Your task to perform on an android device: Open calendar and show me the first week of next month Image 0: 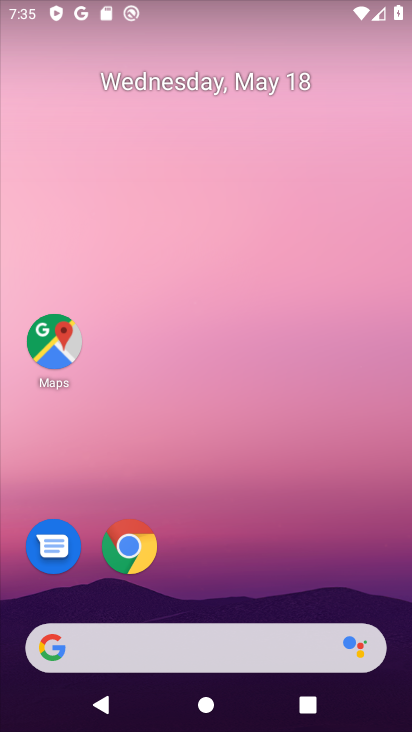
Step 0: drag from (227, 440) to (238, 245)
Your task to perform on an android device: Open calendar and show me the first week of next month Image 1: 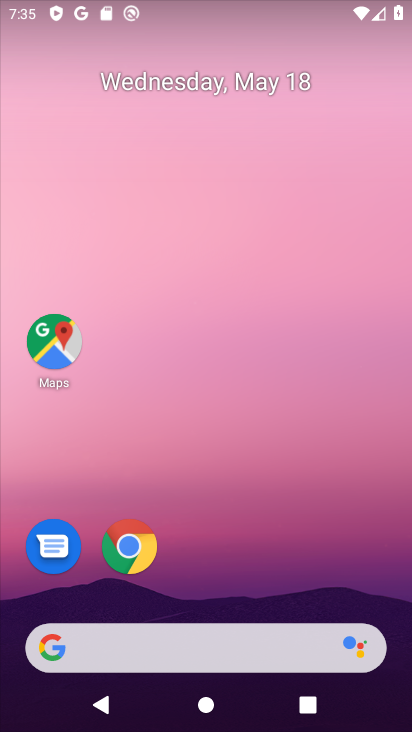
Step 1: drag from (200, 464) to (206, 153)
Your task to perform on an android device: Open calendar and show me the first week of next month Image 2: 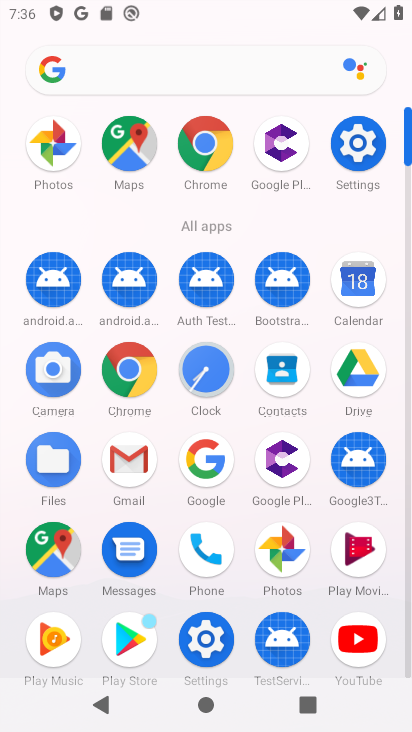
Step 2: click (351, 279)
Your task to perform on an android device: Open calendar and show me the first week of next month Image 3: 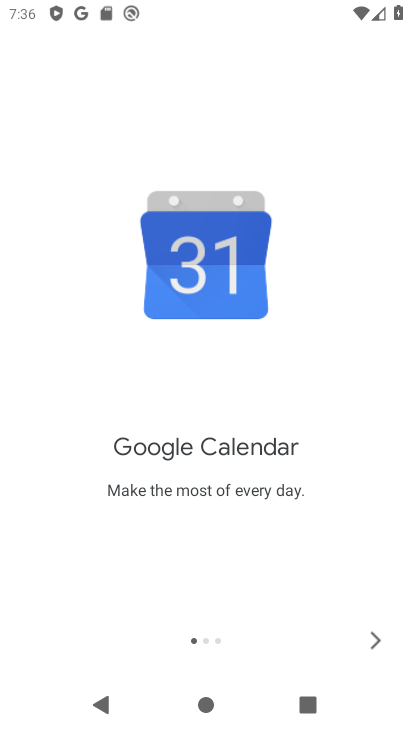
Step 3: click (375, 627)
Your task to perform on an android device: Open calendar and show me the first week of next month Image 4: 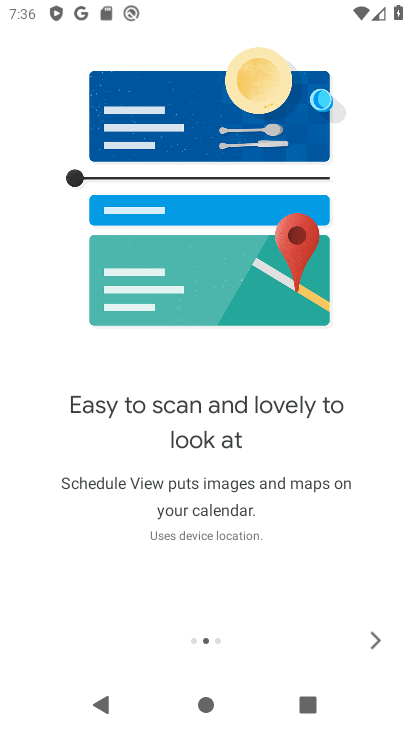
Step 4: click (373, 643)
Your task to perform on an android device: Open calendar and show me the first week of next month Image 5: 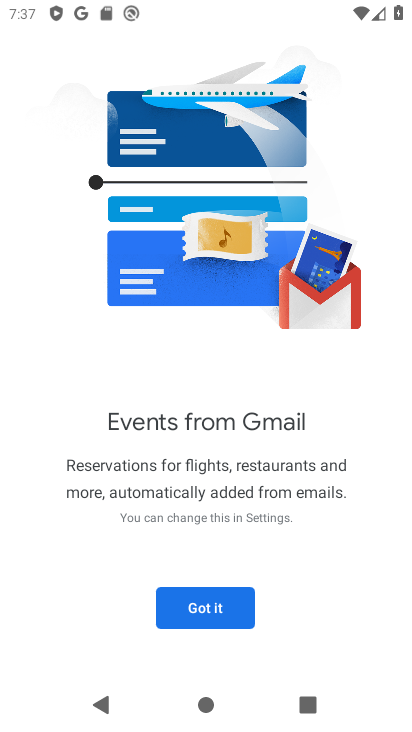
Step 5: click (232, 612)
Your task to perform on an android device: Open calendar and show me the first week of next month Image 6: 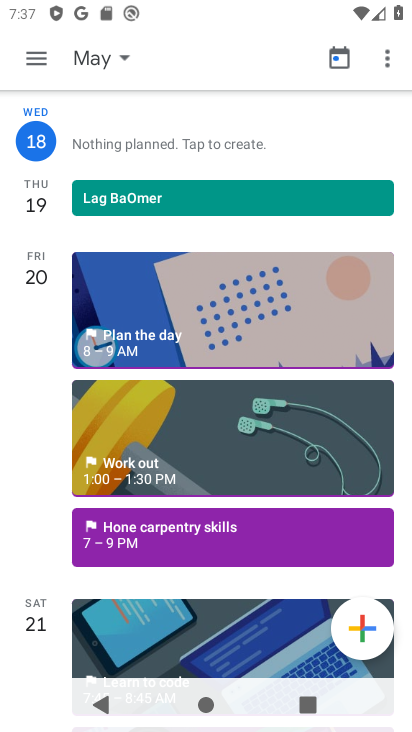
Step 6: click (129, 54)
Your task to perform on an android device: Open calendar and show me the first week of next month Image 7: 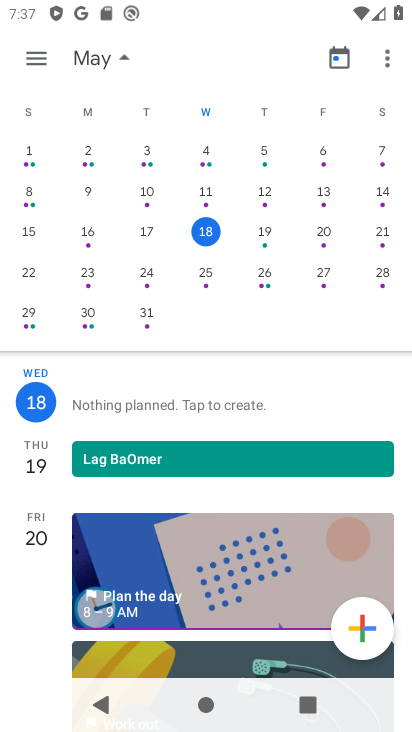
Step 7: drag from (400, 203) to (77, 196)
Your task to perform on an android device: Open calendar and show me the first week of next month Image 8: 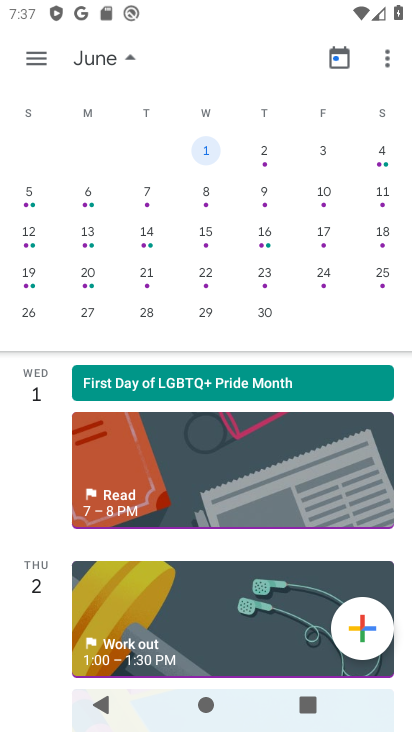
Step 8: click (261, 155)
Your task to perform on an android device: Open calendar and show me the first week of next month Image 9: 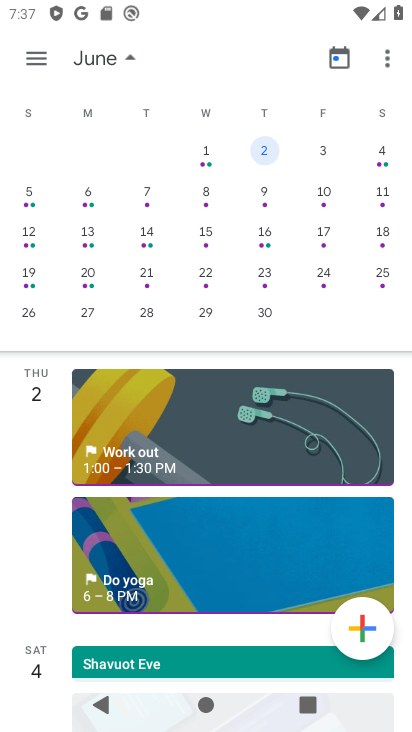
Step 9: click (38, 61)
Your task to perform on an android device: Open calendar and show me the first week of next month Image 10: 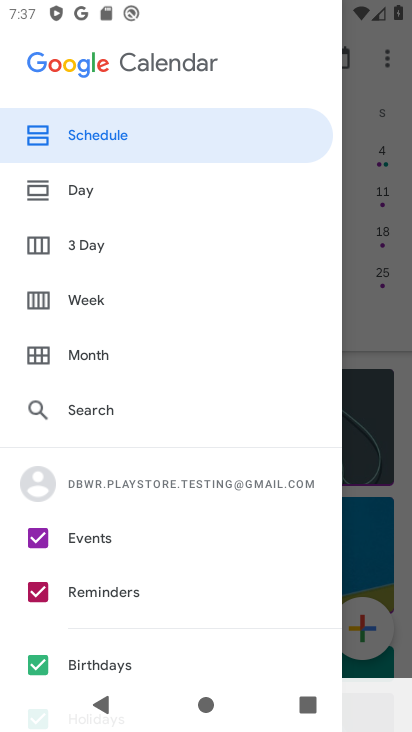
Step 10: click (93, 296)
Your task to perform on an android device: Open calendar and show me the first week of next month Image 11: 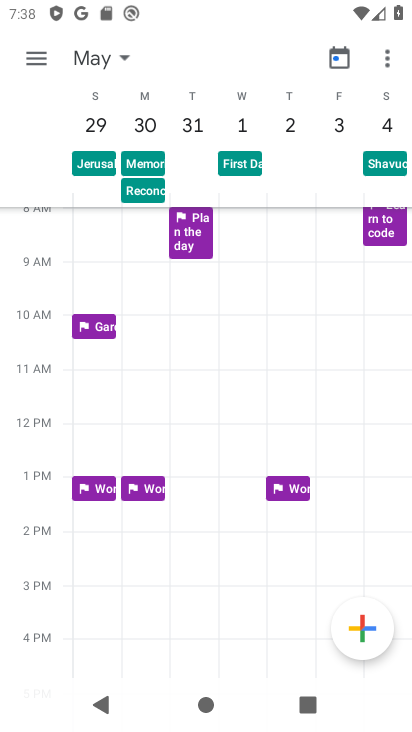
Step 11: task complete